Your task to perform on an android device: open app "Lyft - Rideshare, Bikes, Scooters & Transit" (install if not already installed) and go to login screen Image 0: 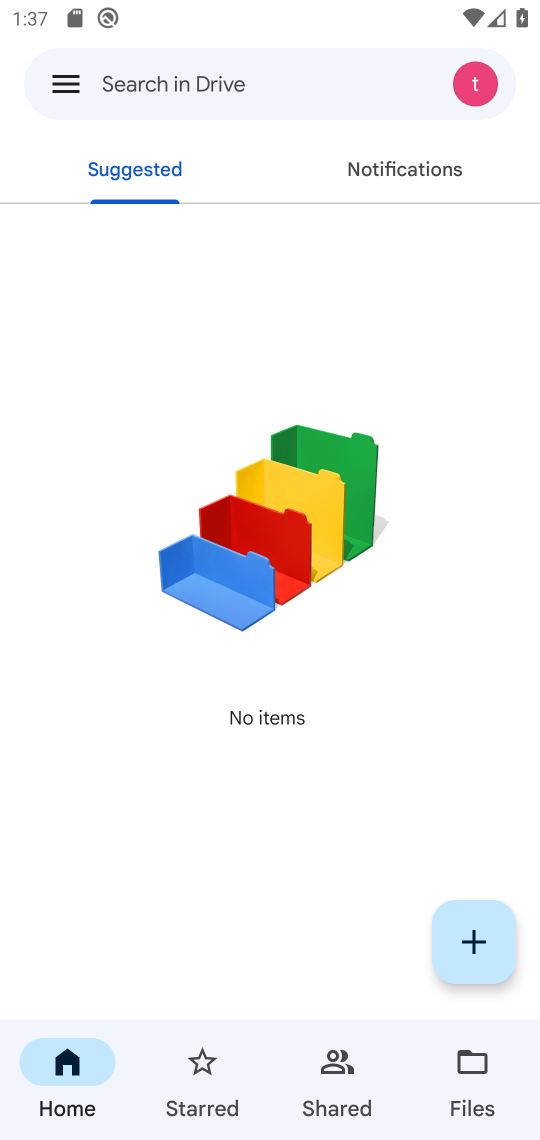
Step 0: press home button
Your task to perform on an android device: open app "Lyft - Rideshare, Bikes, Scooters & Transit" (install if not already installed) and go to login screen Image 1: 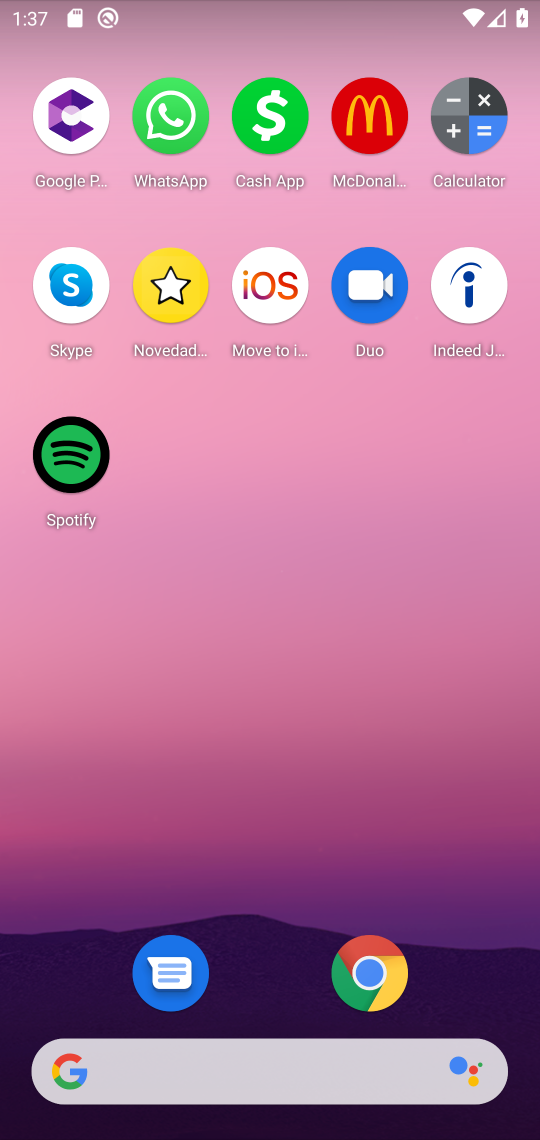
Step 1: drag from (292, 988) to (442, 2)
Your task to perform on an android device: open app "Lyft - Rideshare, Bikes, Scooters & Transit" (install if not already installed) and go to login screen Image 2: 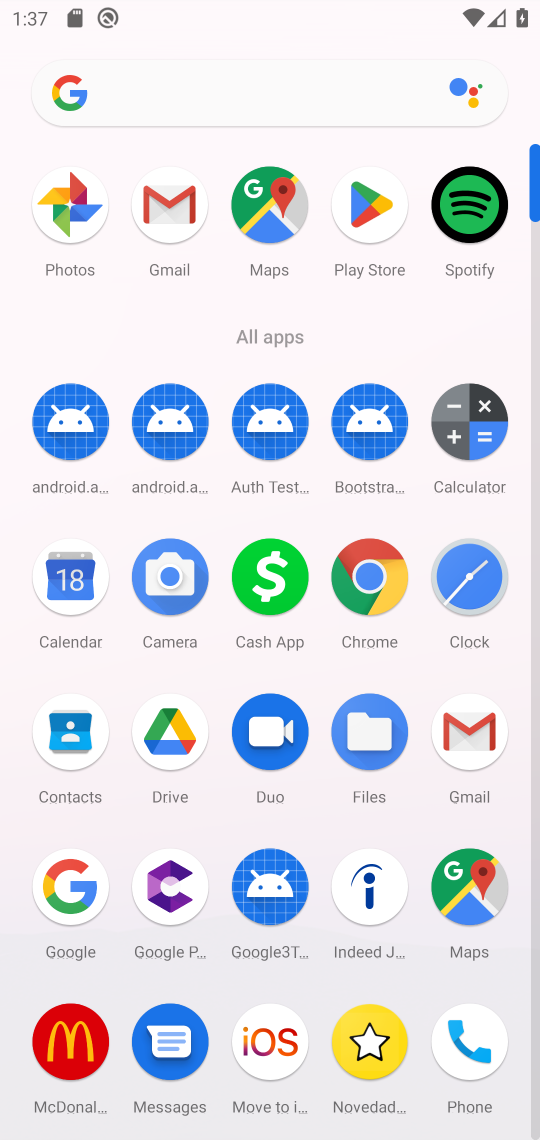
Step 2: click (401, 236)
Your task to perform on an android device: open app "Lyft - Rideshare, Bikes, Scooters & Transit" (install if not already installed) and go to login screen Image 3: 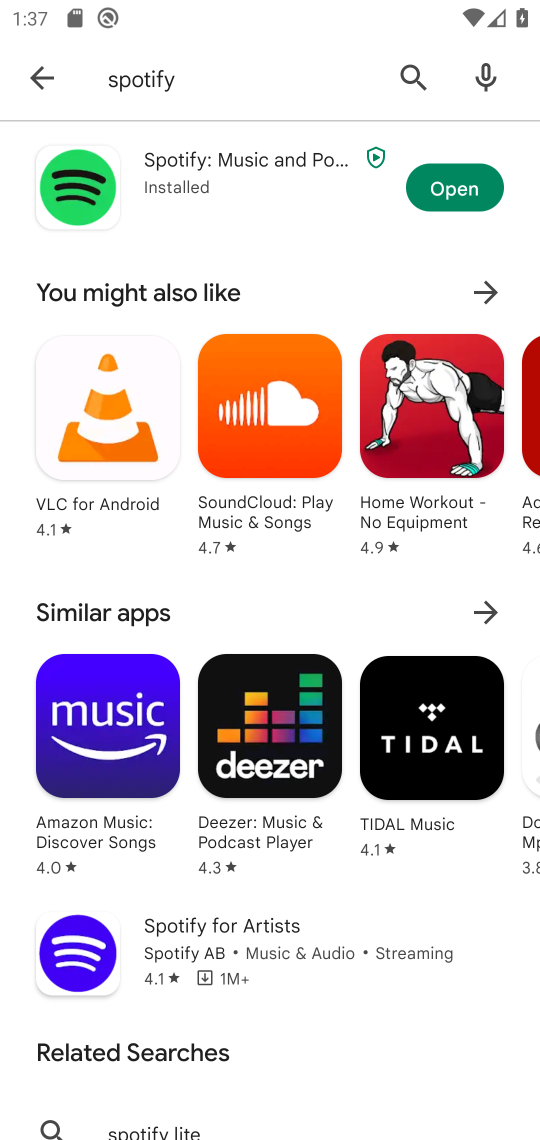
Step 3: click (408, 76)
Your task to perform on an android device: open app "Lyft - Rideshare, Bikes, Scooters & Transit" (install if not already installed) and go to login screen Image 4: 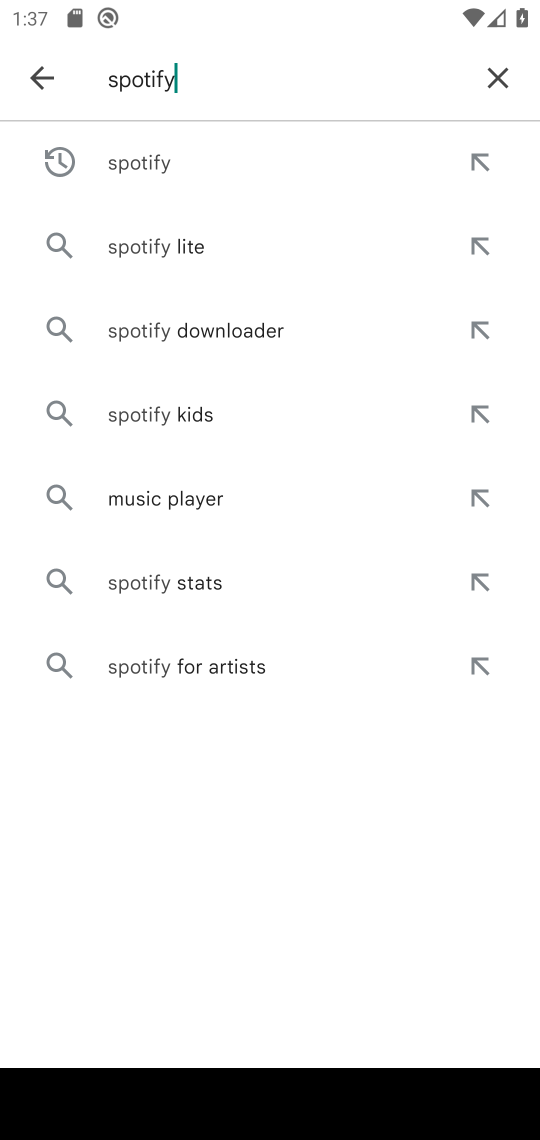
Step 4: click (506, 87)
Your task to perform on an android device: open app "Lyft - Rideshare, Bikes, Scooters & Transit" (install if not already installed) and go to login screen Image 5: 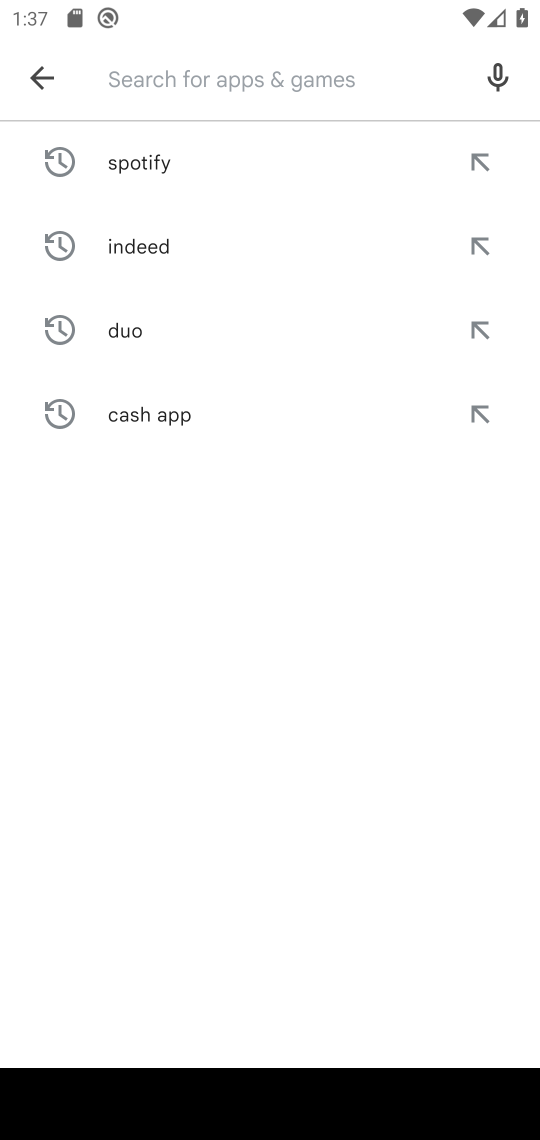
Step 5: type "lyst"
Your task to perform on an android device: open app "Lyft - Rideshare, Bikes, Scooters & Transit" (install if not already installed) and go to login screen Image 6: 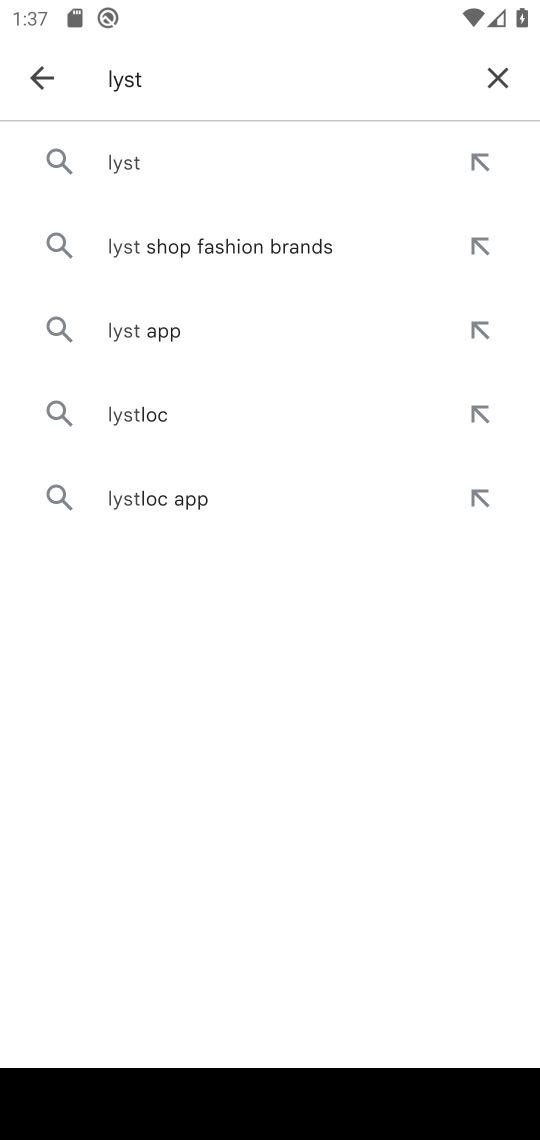
Step 6: click (280, 191)
Your task to perform on an android device: open app "Lyft - Rideshare, Bikes, Scooters & Transit" (install if not already installed) and go to login screen Image 7: 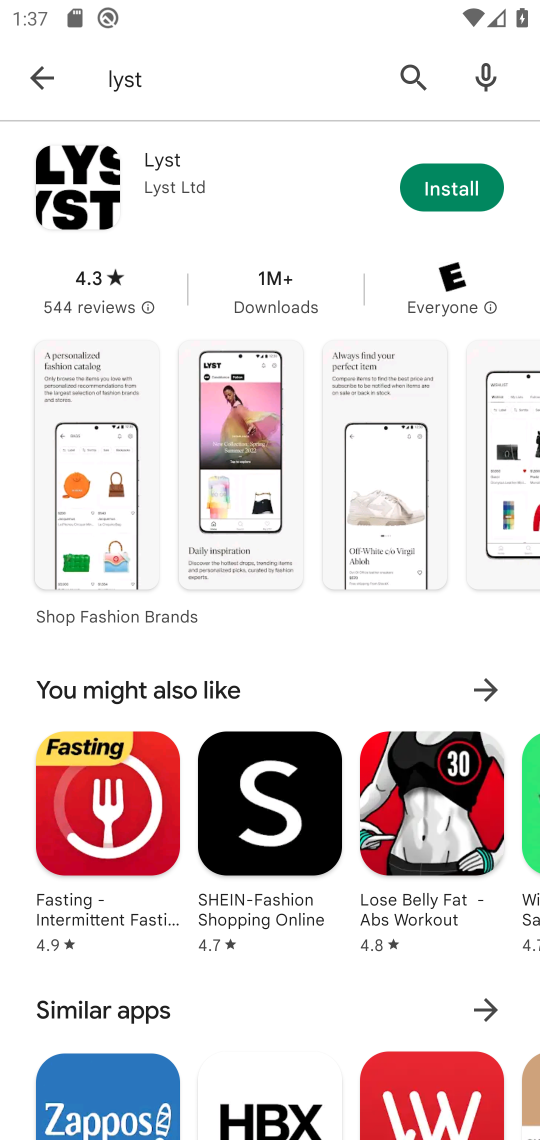
Step 7: click (500, 198)
Your task to perform on an android device: open app "Lyft - Rideshare, Bikes, Scooters & Transit" (install if not already installed) and go to login screen Image 8: 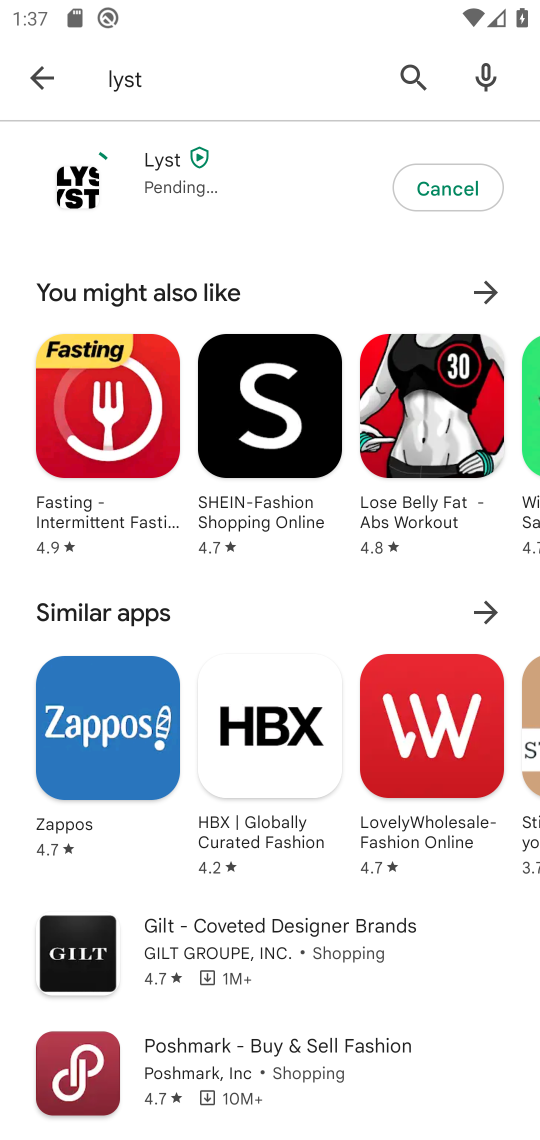
Step 8: task complete